Your task to perform on an android device: Open Yahoo.com Image 0: 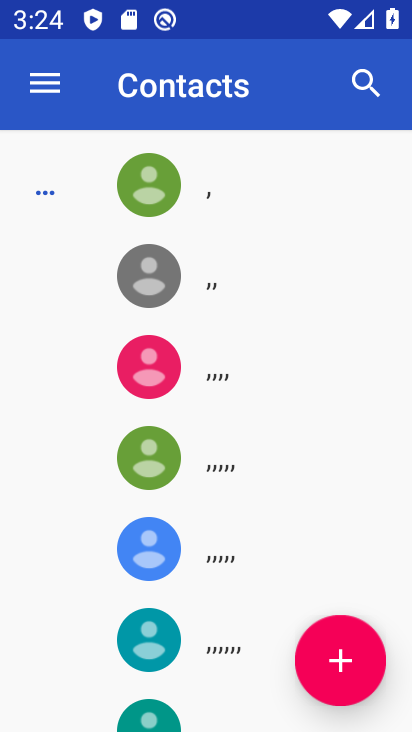
Step 0: press back button
Your task to perform on an android device: Open Yahoo.com Image 1: 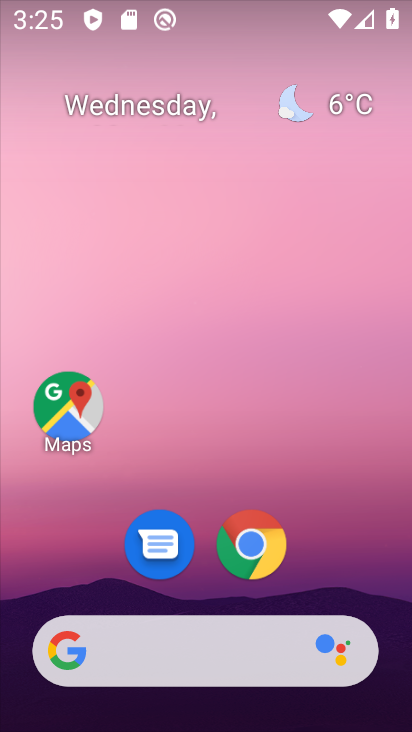
Step 1: click (254, 554)
Your task to perform on an android device: Open Yahoo.com Image 2: 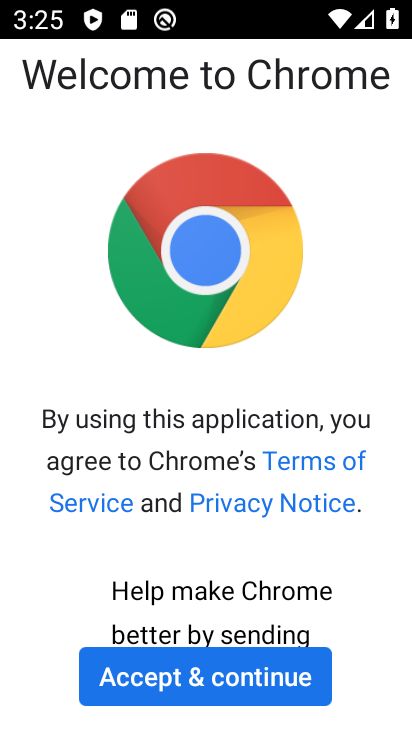
Step 2: click (239, 694)
Your task to perform on an android device: Open Yahoo.com Image 3: 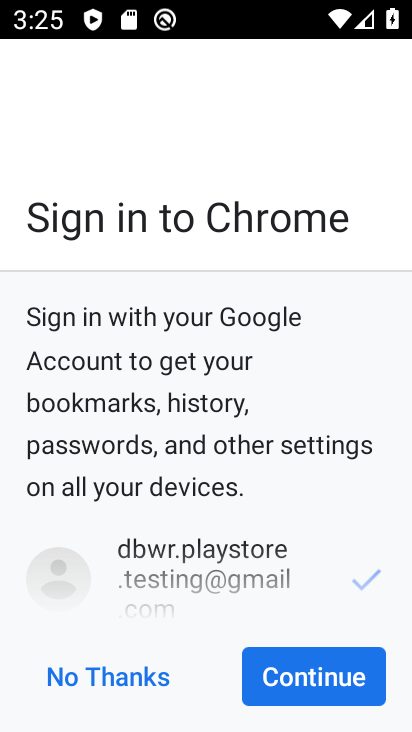
Step 3: click (312, 695)
Your task to perform on an android device: Open Yahoo.com Image 4: 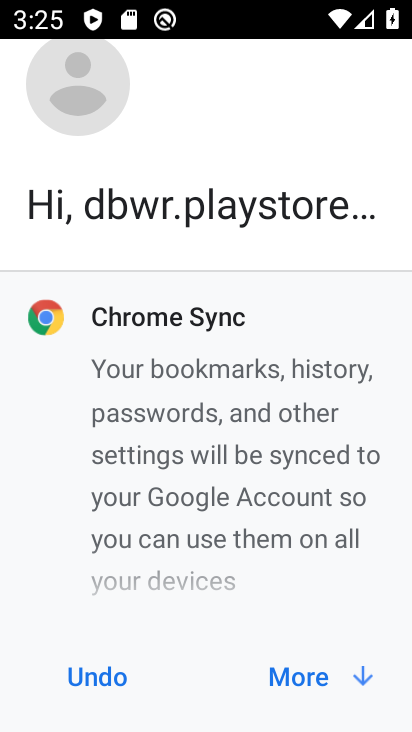
Step 4: click (318, 696)
Your task to perform on an android device: Open Yahoo.com Image 5: 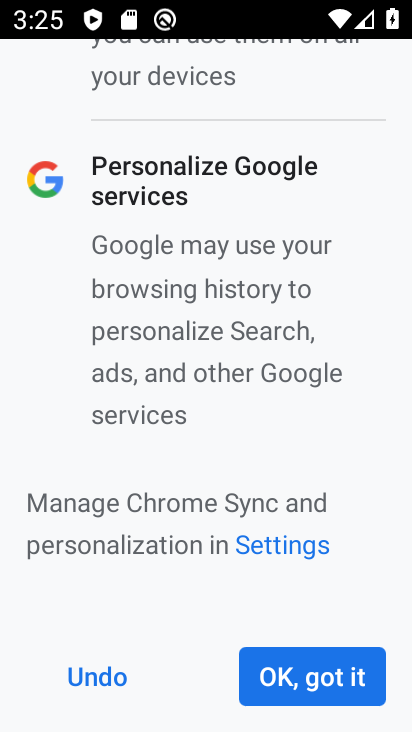
Step 5: click (318, 696)
Your task to perform on an android device: Open Yahoo.com Image 6: 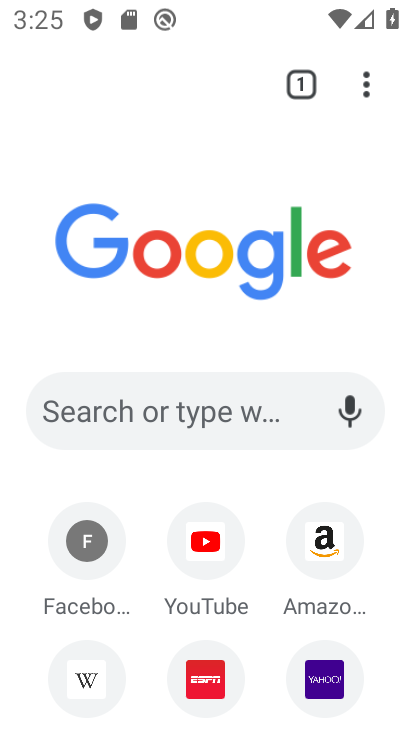
Step 6: click (316, 678)
Your task to perform on an android device: Open Yahoo.com Image 7: 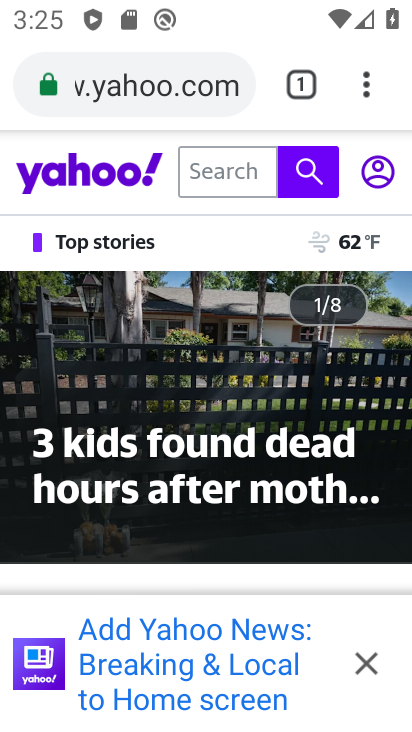
Step 7: task complete